Your task to perform on an android device: Open Youtube and go to the subscriptions tab Image 0: 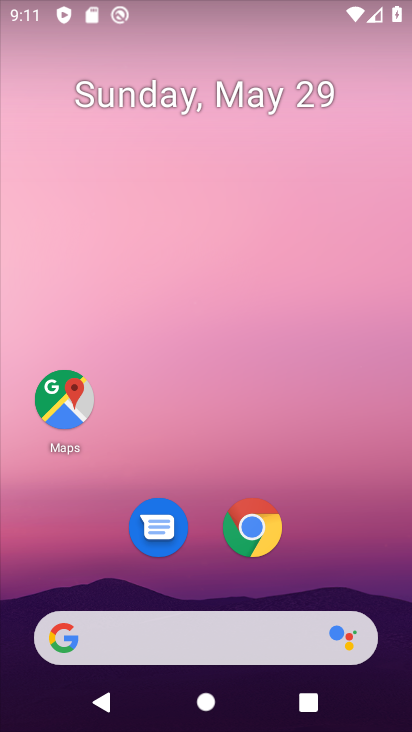
Step 0: press home button
Your task to perform on an android device: Open Youtube and go to the subscriptions tab Image 1: 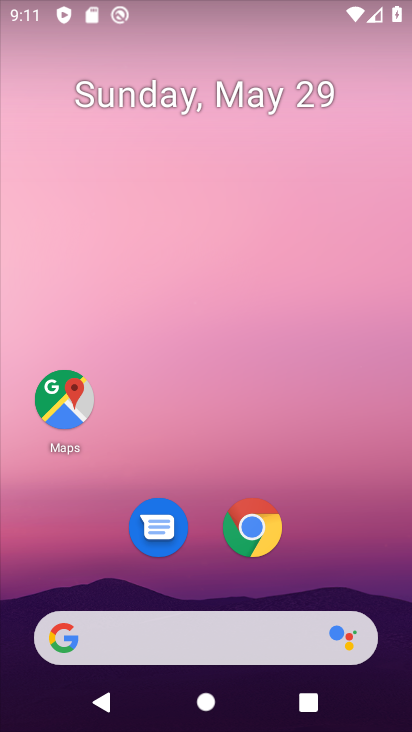
Step 1: drag from (182, 632) to (338, 134)
Your task to perform on an android device: Open Youtube and go to the subscriptions tab Image 2: 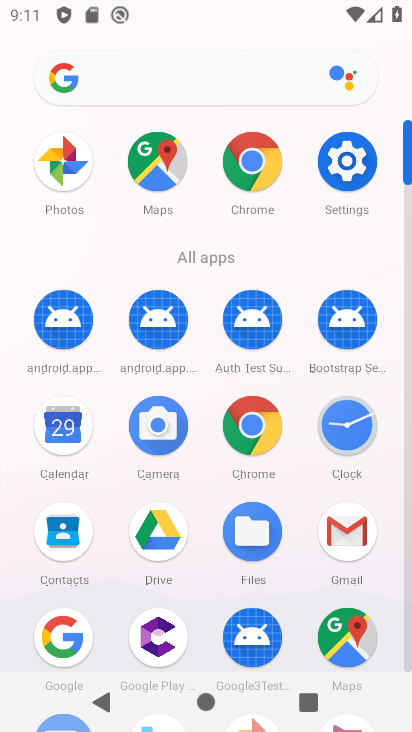
Step 2: drag from (205, 602) to (346, 148)
Your task to perform on an android device: Open Youtube and go to the subscriptions tab Image 3: 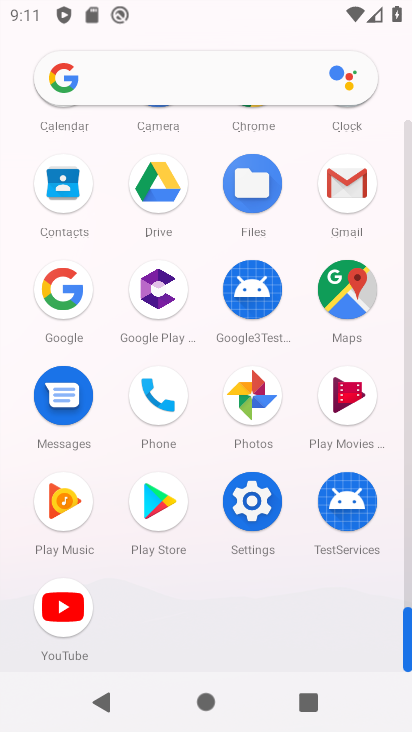
Step 3: click (70, 609)
Your task to perform on an android device: Open Youtube and go to the subscriptions tab Image 4: 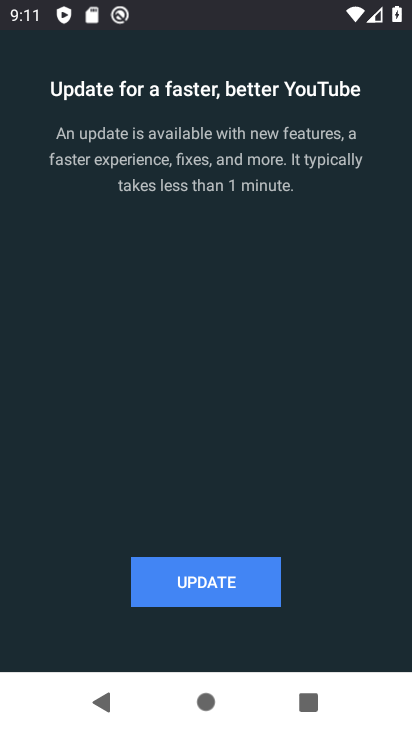
Step 4: click (218, 589)
Your task to perform on an android device: Open Youtube and go to the subscriptions tab Image 5: 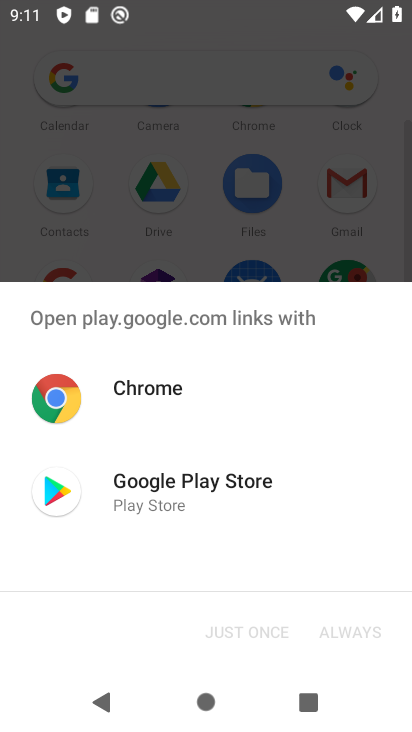
Step 5: click (203, 494)
Your task to perform on an android device: Open Youtube and go to the subscriptions tab Image 6: 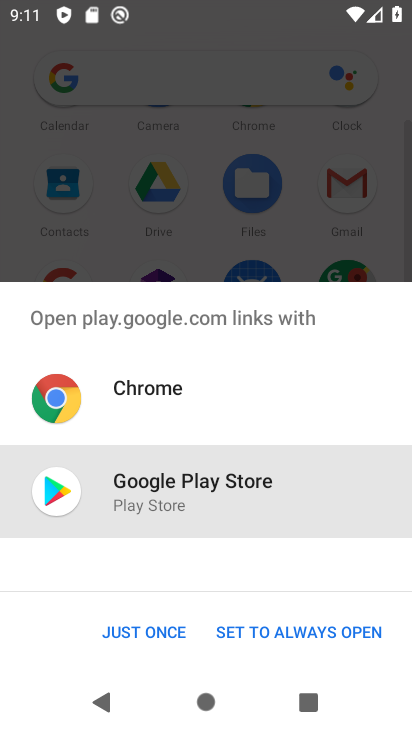
Step 6: click (140, 635)
Your task to perform on an android device: Open Youtube and go to the subscriptions tab Image 7: 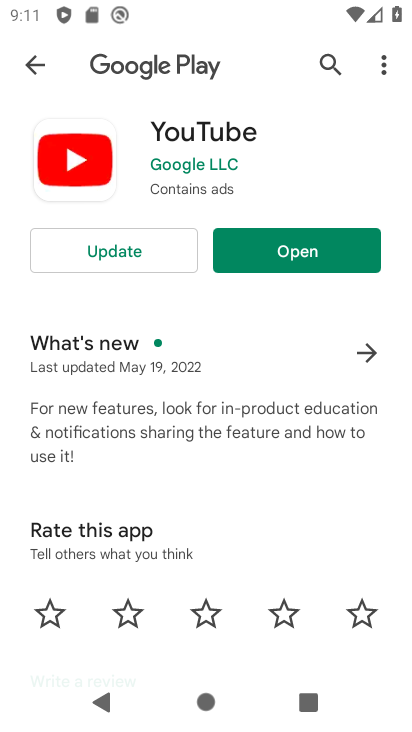
Step 7: click (118, 250)
Your task to perform on an android device: Open Youtube and go to the subscriptions tab Image 8: 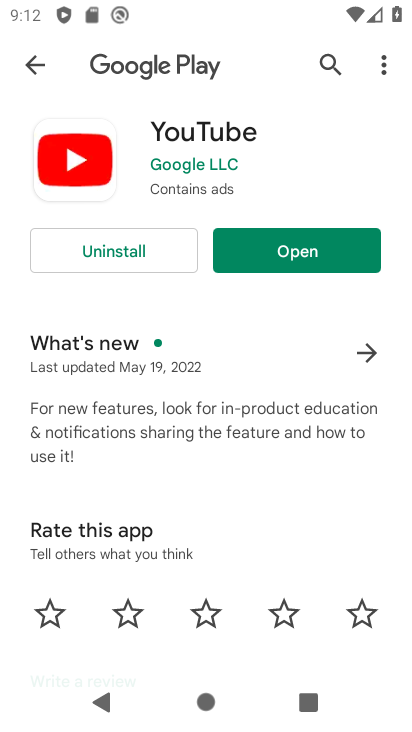
Step 8: click (288, 253)
Your task to perform on an android device: Open Youtube and go to the subscriptions tab Image 9: 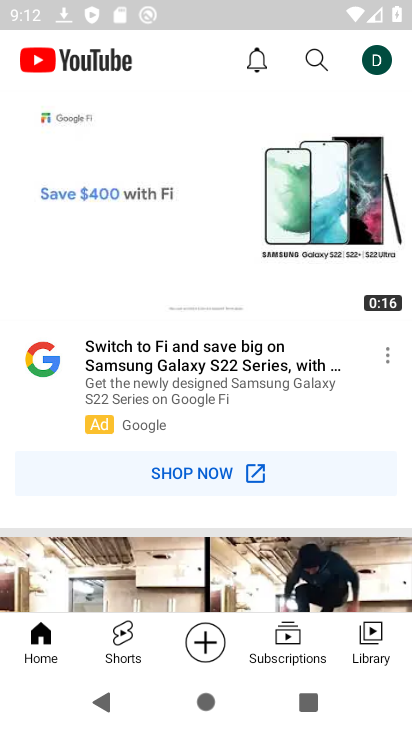
Step 9: click (287, 644)
Your task to perform on an android device: Open Youtube and go to the subscriptions tab Image 10: 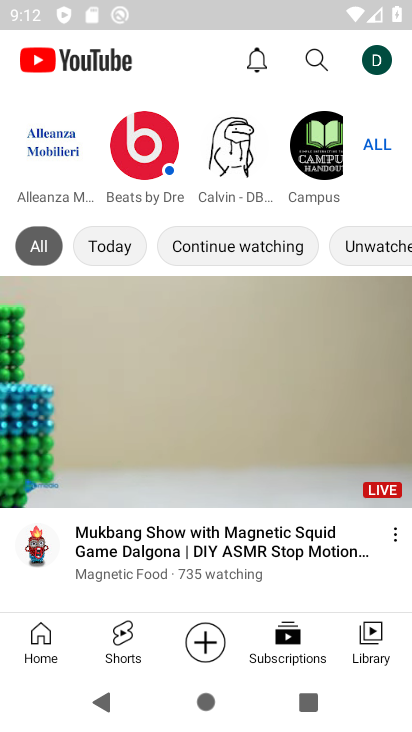
Step 10: task complete